Your task to perform on an android device: Open accessibility settings Image 0: 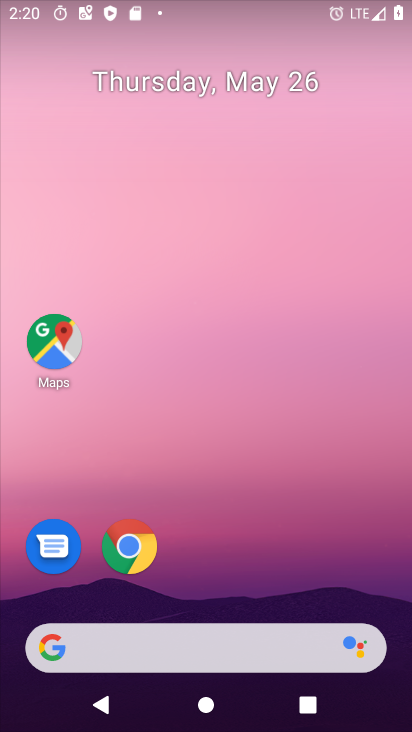
Step 0: drag from (217, 467) to (219, 46)
Your task to perform on an android device: Open accessibility settings Image 1: 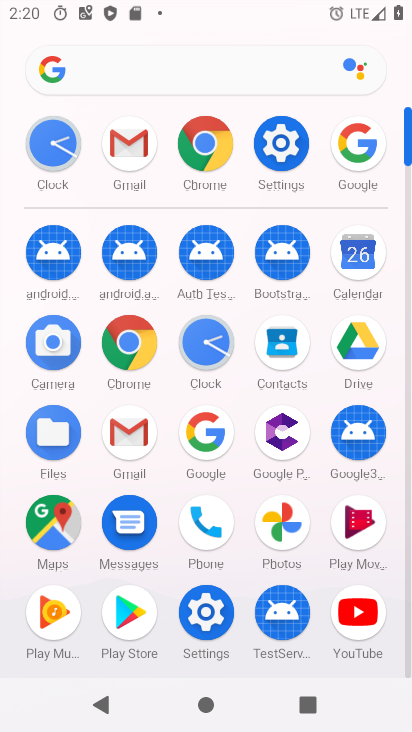
Step 1: click (283, 138)
Your task to perform on an android device: Open accessibility settings Image 2: 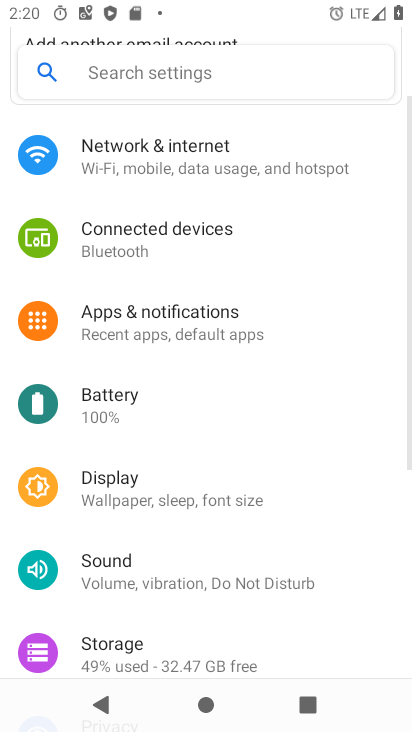
Step 2: drag from (193, 612) to (228, 94)
Your task to perform on an android device: Open accessibility settings Image 3: 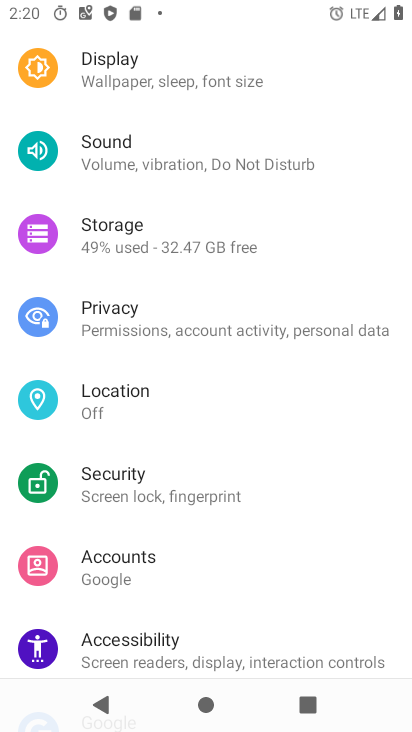
Step 3: click (168, 627)
Your task to perform on an android device: Open accessibility settings Image 4: 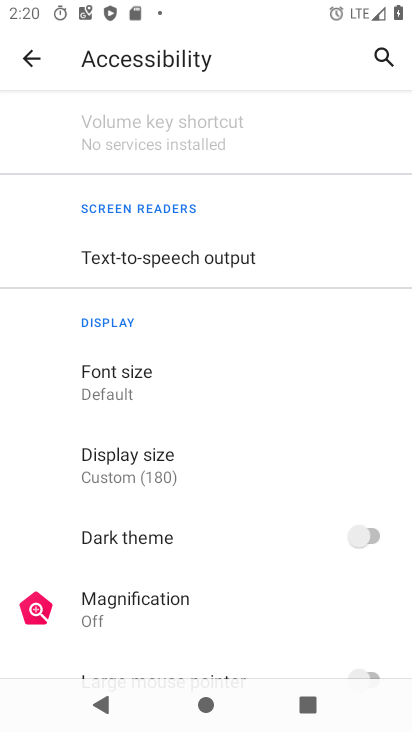
Step 4: task complete